Your task to perform on an android device: toggle show notifications on the lock screen Image 0: 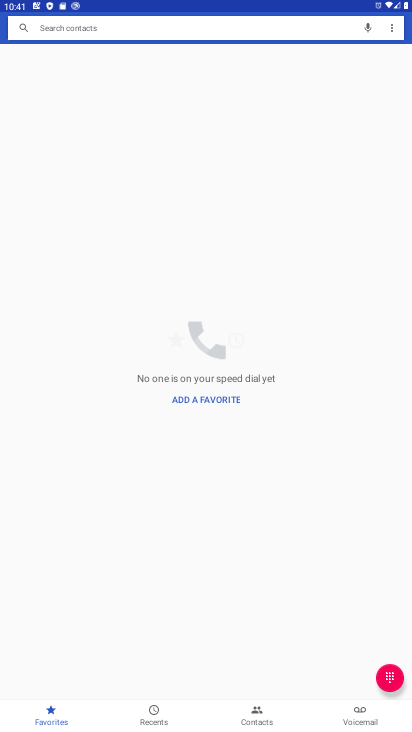
Step 0: press home button
Your task to perform on an android device: toggle show notifications on the lock screen Image 1: 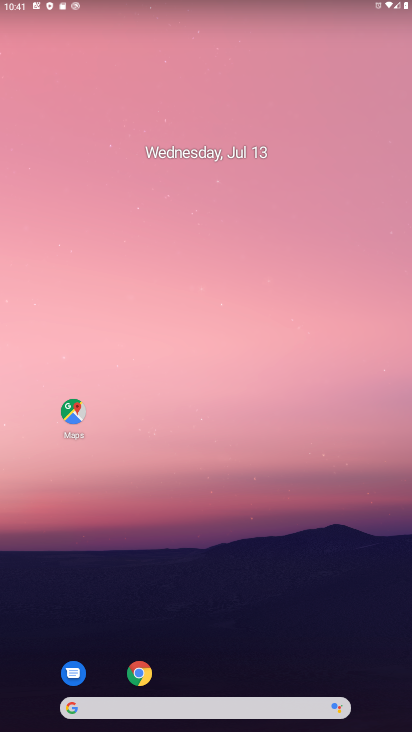
Step 1: drag from (200, 657) to (255, 132)
Your task to perform on an android device: toggle show notifications on the lock screen Image 2: 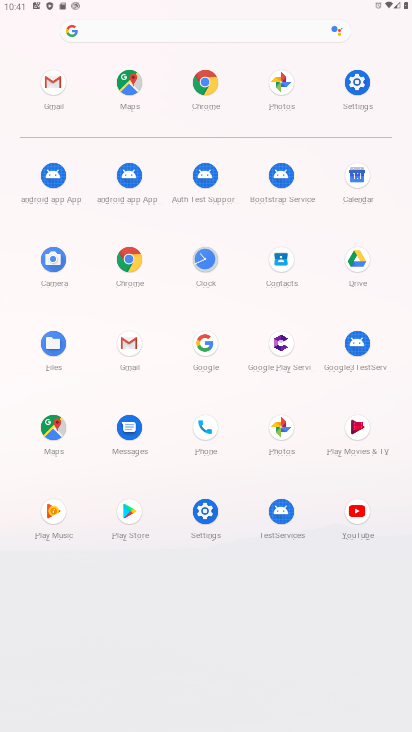
Step 2: click (352, 92)
Your task to perform on an android device: toggle show notifications on the lock screen Image 3: 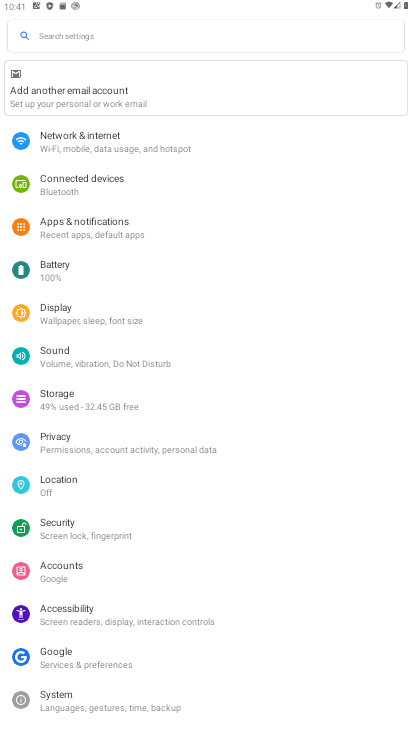
Step 3: click (118, 221)
Your task to perform on an android device: toggle show notifications on the lock screen Image 4: 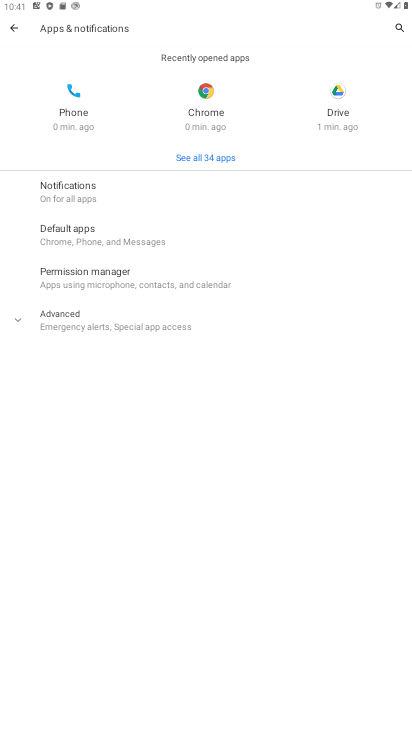
Step 4: click (111, 199)
Your task to perform on an android device: toggle show notifications on the lock screen Image 5: 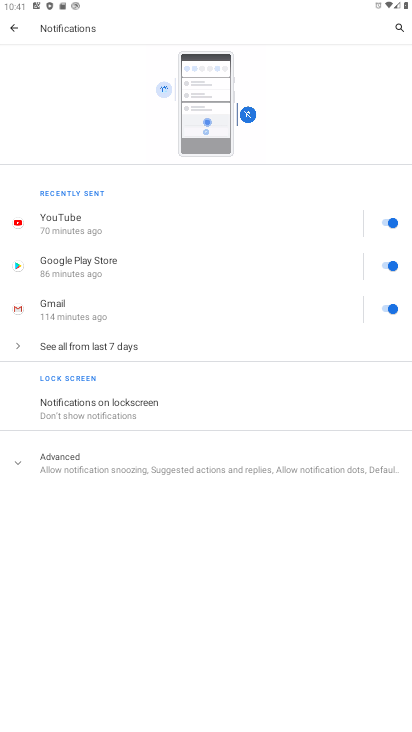
Step 5: click (237, 471)
Your task to perform on an android device: toggle show notifications on the lock screen Image 6: 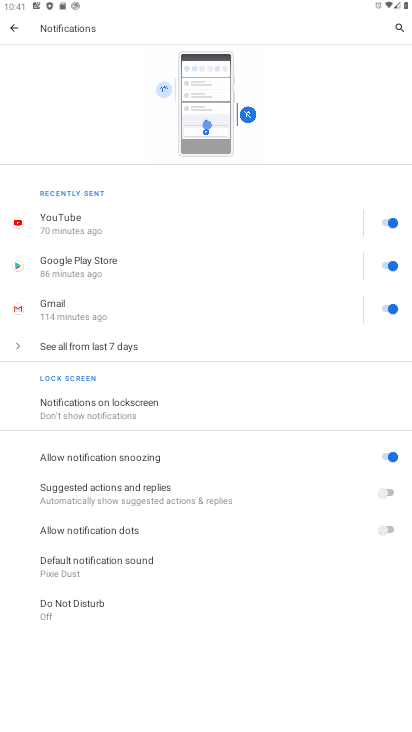
Step 6: click (173, 410)
Your task to perform on an android device: toggle show notifications on the lock screen Image 7: 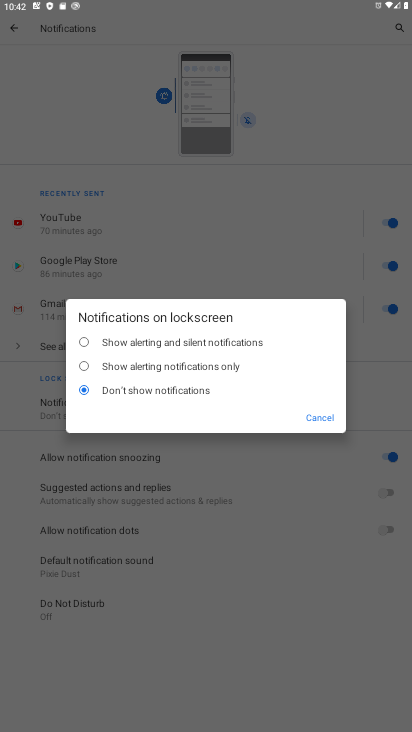
Step 7: click (229, 349)
Your task to perform on an android device: toggle show notifications on the lock screen Image 8: 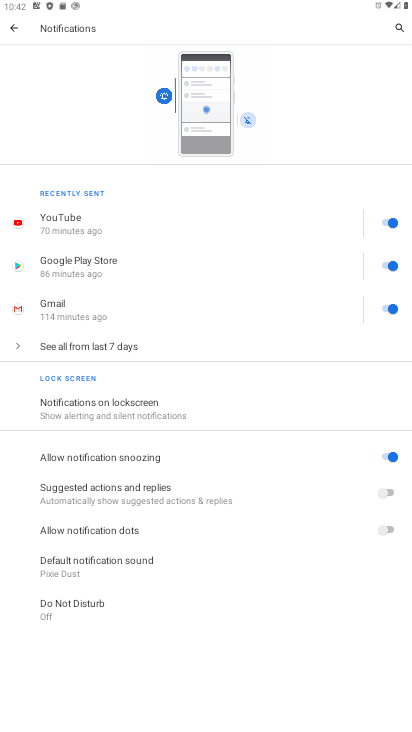
Step 8: task complete